Your task to perform on an android device: Open Reddit.com Image 0: 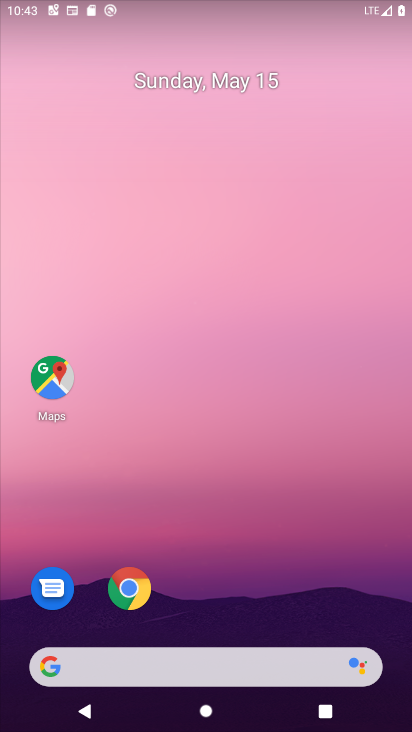
Step 0: drag from (251, 598) to (251, 140)
Your task to perform on an android device: Open Reddit.com Image 1: 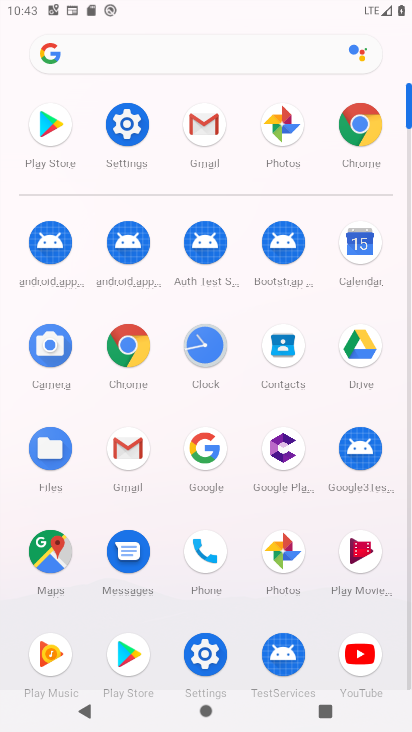
Step 1: click (129, 354)
Your task to perform on an android device: Open Reddit.com Image 2: 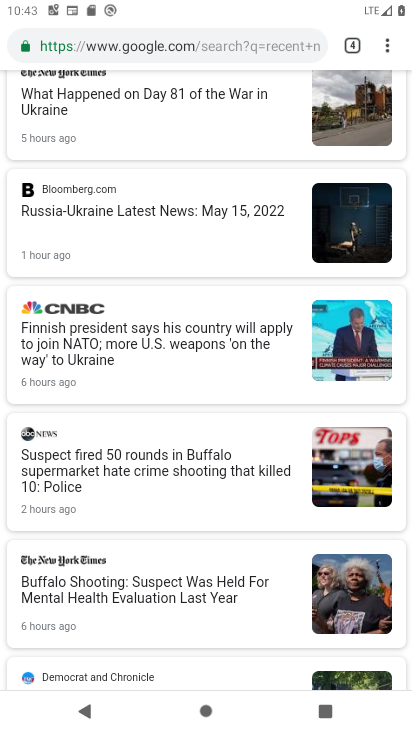
Step 2: click (349, 45)
Your task to perform on an android device: Open Reddit.com Image 3: 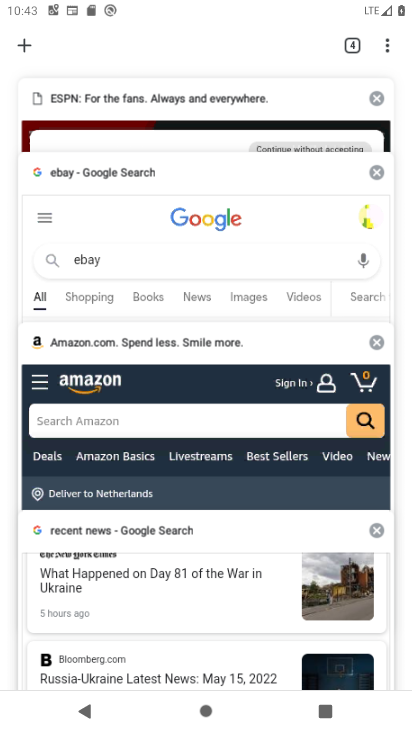
Step 3: click (28, 49)
Your task to perform on an android device: Open Reddit.com Image 4: 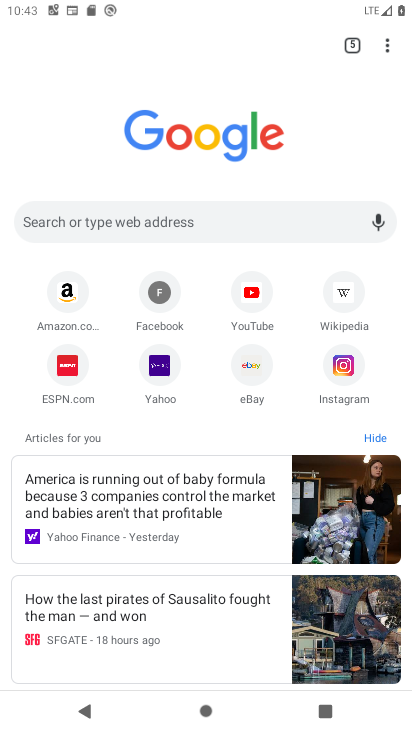
Step 4: click (202, 219)
Your task to perform on an android device: Open Reddit.com Image 5: 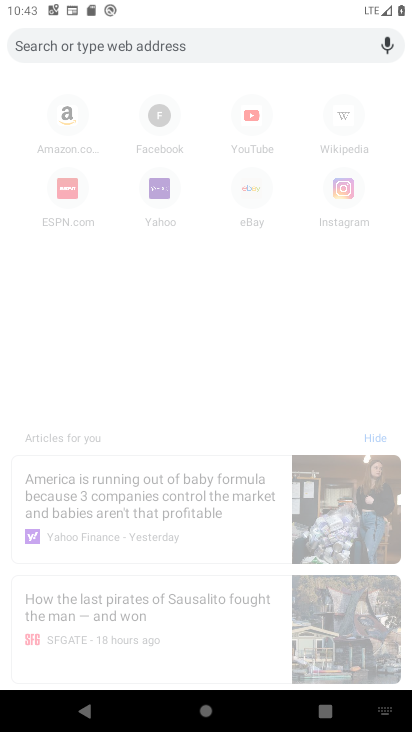
Step 5: type "Reddit.com"
Your task to perform on an android device: Open Reddit.com Image 6: 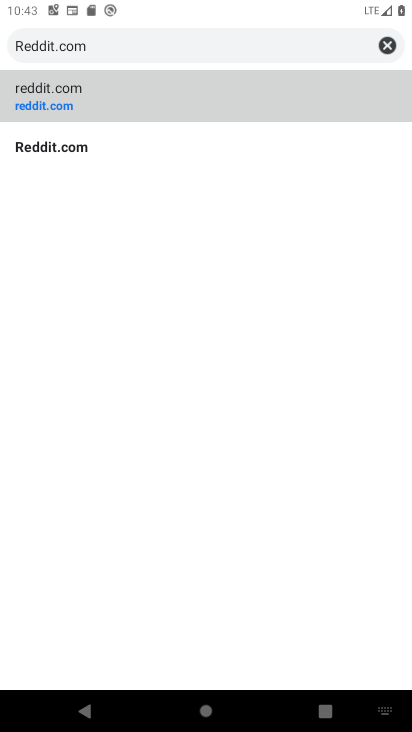
Step 6: click (130, 97)
Your task to perform on an android device: Open Reddit.com Image 7: 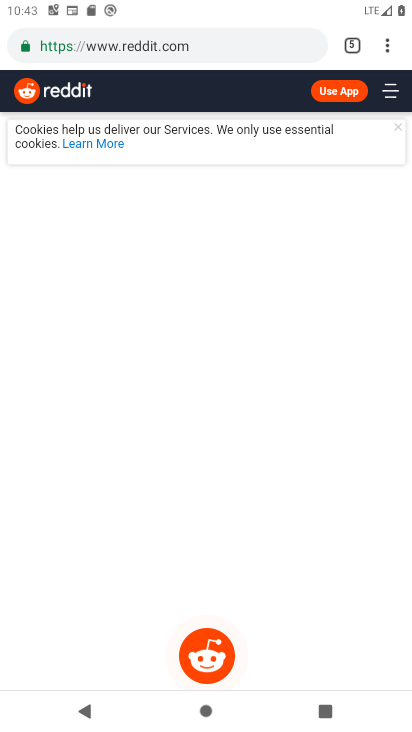
Step 7: task complete